Your task to perform on an android device: Open Youtube and go to "Your channel" Image 0: 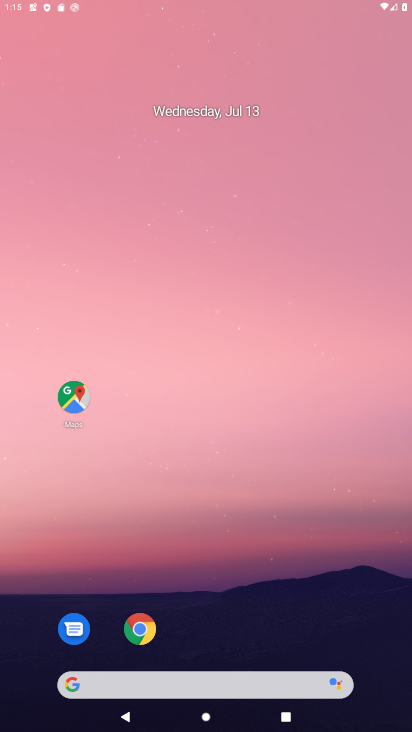
Step 0: click (240, 52)
Your task to perform on an android device: Open Youtube and go to "Your channel" Image 1: 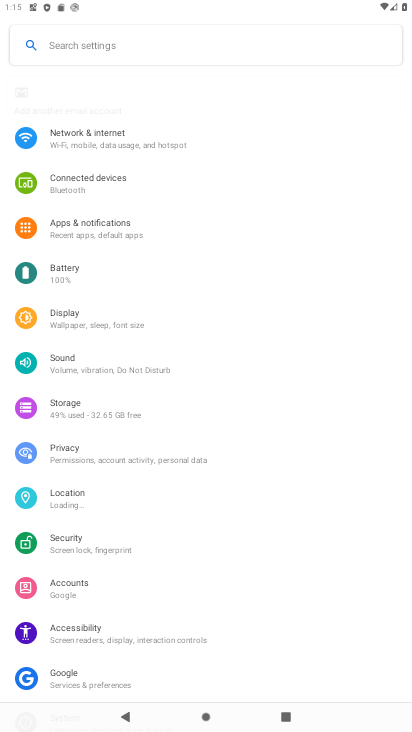
Step 1: drag from (181, 650) to (321, 152)
Your task to perform on an android device: Open Youtube and go to "Your channel" Image 2: 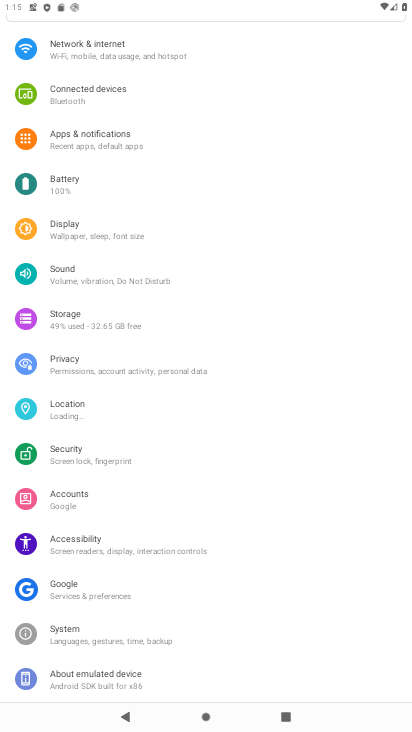
Step 2: drag from (271, 175) to (384, 671)
Your task to perform on an android device: Open Youtube and go to "Your channel" Image 3: 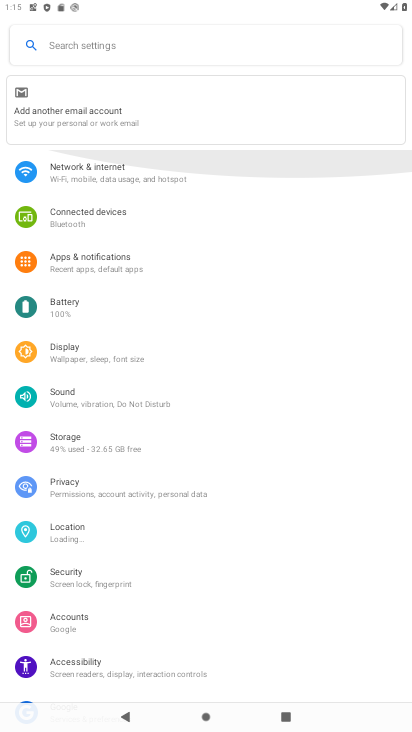
Step 3: press home button
Your task to perform on an android device: Open Youtube and go to "Your channel" Image 4: 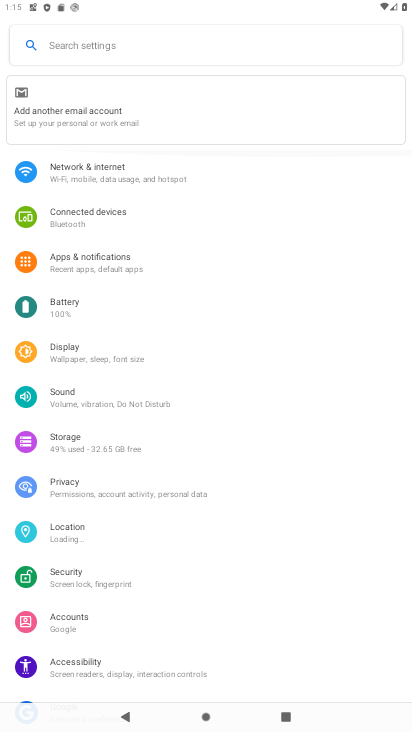
Step 4: drag from (384, 671) to (392, 550)
Your task to perform on an android device: Open Youtube and go to "Your channel" Image 5: 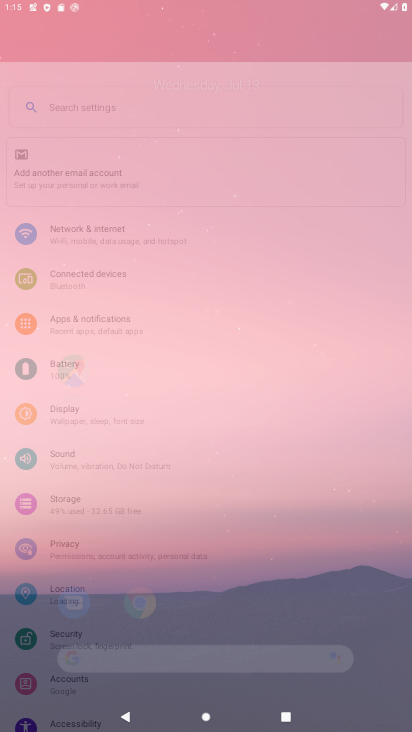
Step 5: drag from (194, 514) to (298, 20)
Your task to perform on an android device: Open Youtube and go to "Your channel" Image 6: 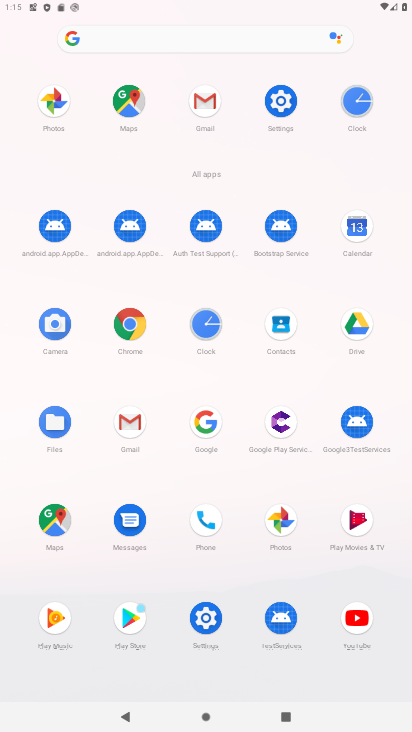
Step 6: click (357, 615)
Your task to perform on an android device: Open Youtube and go to "Your channel" Image 7: 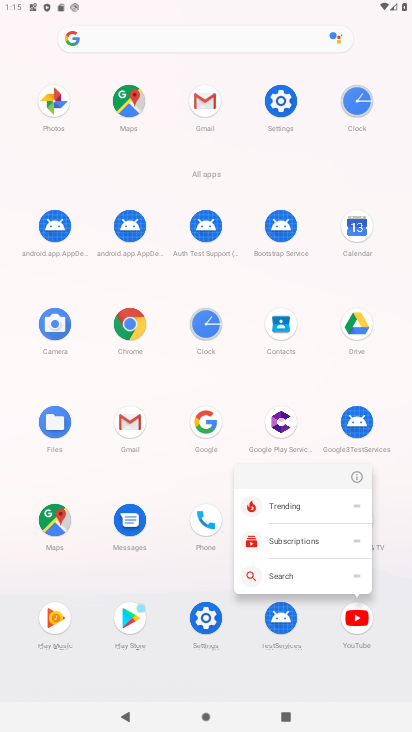
Step 7: click (352, 475)
Your task to perform on an android device: Open Youtube and go to "Your channel" Image 8: 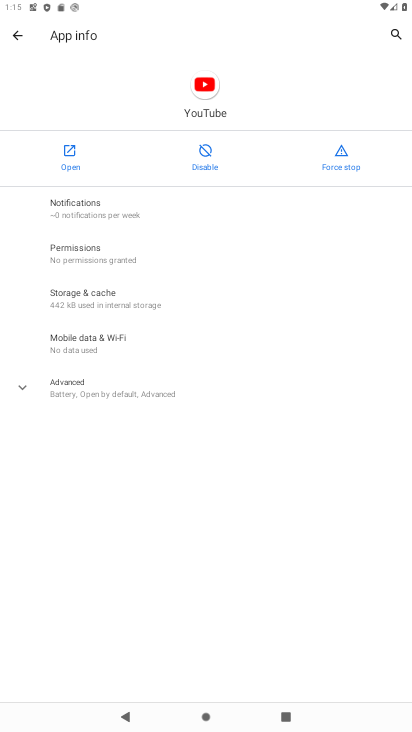
Step 8: click (76, 142)
Your task to perform on an android device: Open Youtube and go to "Your channel" Image 9: 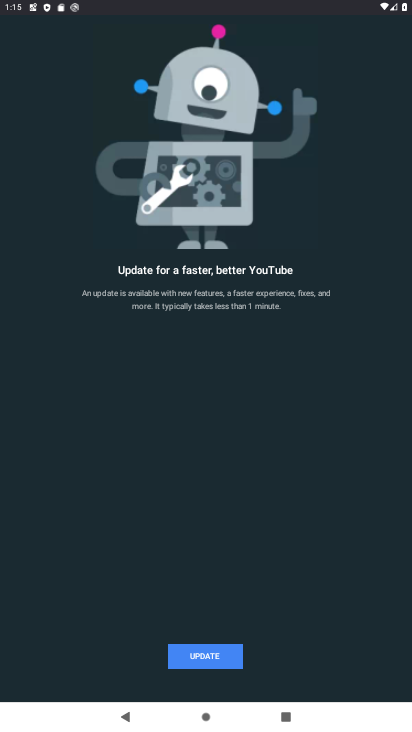
Step 9: drag from (212, 535) to (200, 233)
Your task to perform on an android device: Open Youtube and go to "Your channel" Image 10: 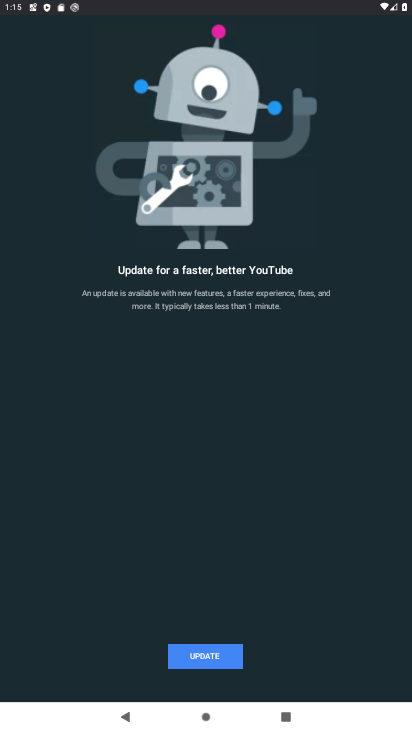
Step 10: press home button
Your task to perform on an android device: Open Youtube and go to "Your channel" Image 11: 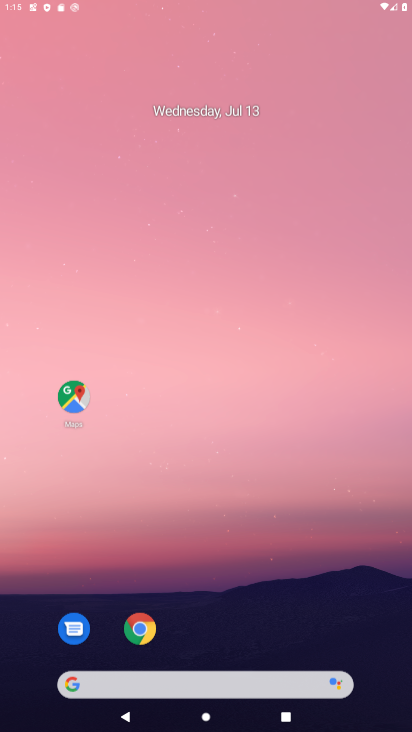
Step 11: drag from (264, 583) to (269, 225)
Your task to perform on an android device: Open Youtube and go to "Your channel" Image 12: 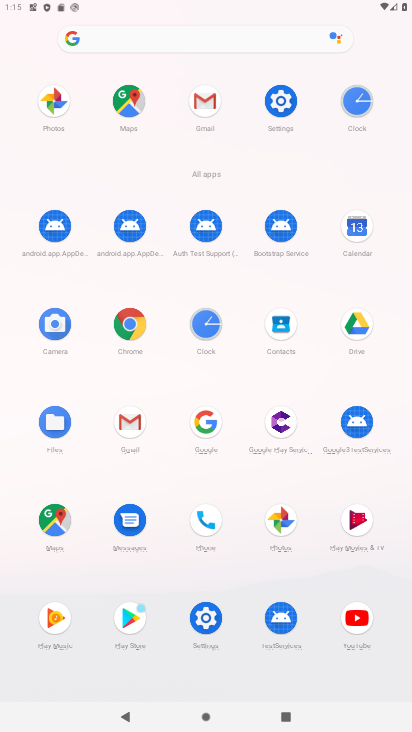
Step 12: click (363, 627)
Your task to perform on an android device: Open Youtube and go to "Your channel" Image 13: 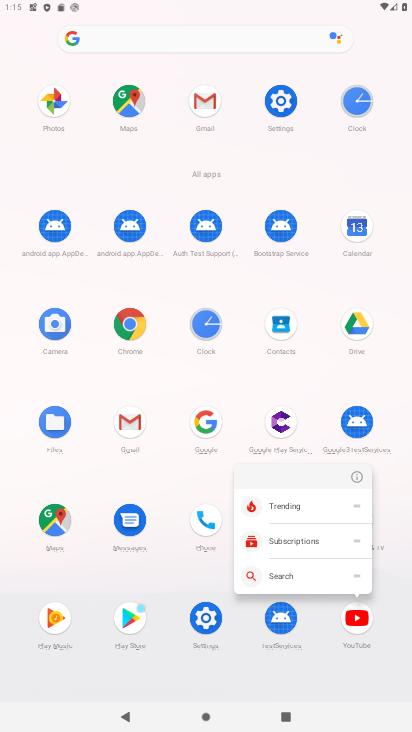
Step 13: click (355, 474)
Your task to perform on an android device: Open Youtube and go to "Your channel" Image 14: 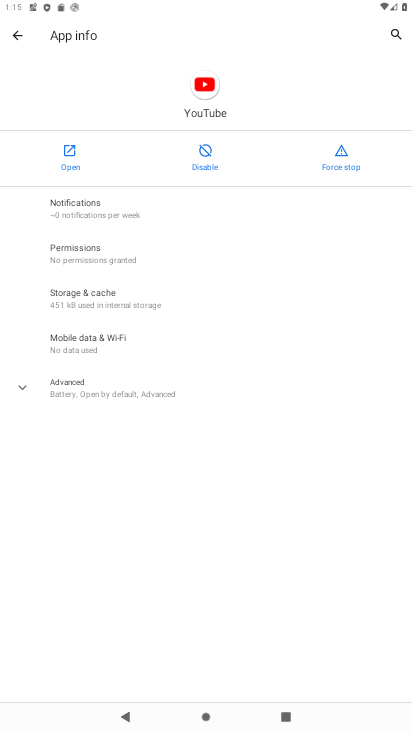
Step 14: click (61, 162)
Your task to perform on an android device: Open Youtube and go to "Your channel" Image 15: 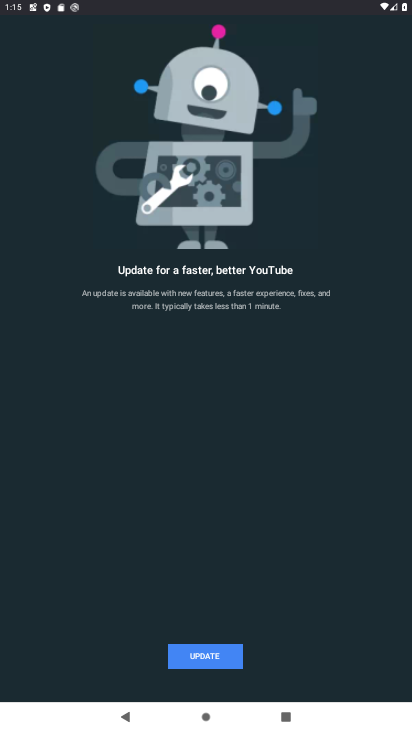
Step 15: click (207, 266)
Your task to perform on an android device: Open Youtube and go to "Your channel" Image 16: 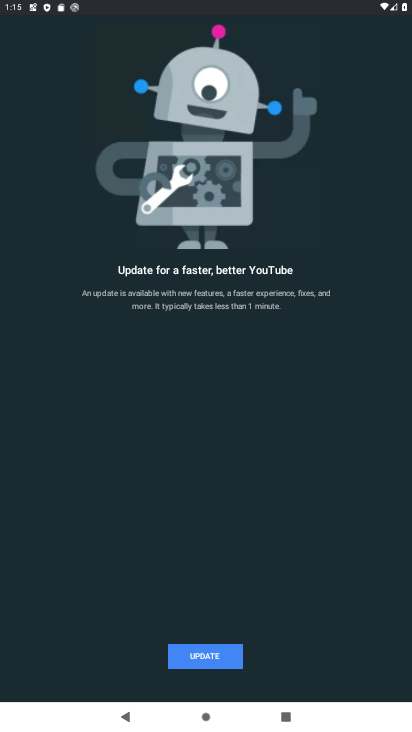
Step 16: click (200, 134)
Your task to perform on an android device: Open Youtube and go to "Your channel" Image 17: 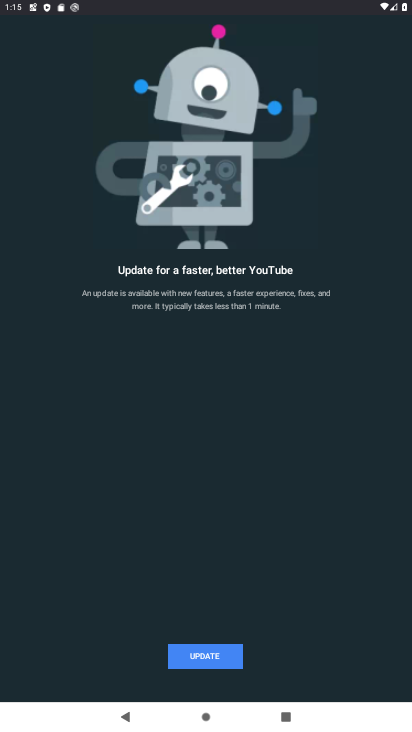
Step 17: click (219, 57)
Your task to perform on an android device: Open Youtube and go to "Your channel" Image 18: 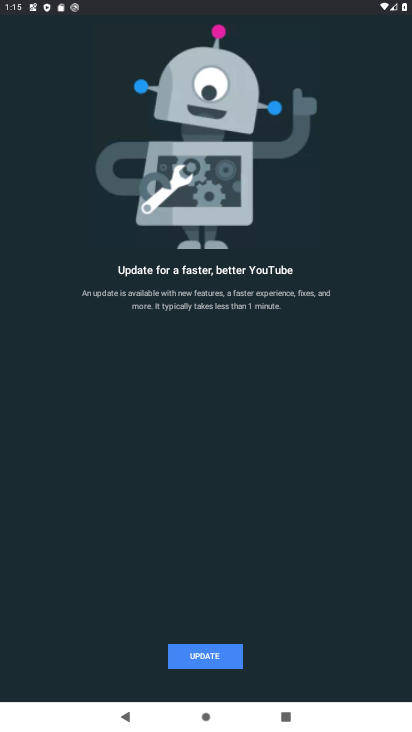
Step 18: click (212, 32)
Your task to perform on an android device: Open Youtube and go to "Your channel" Image 19: 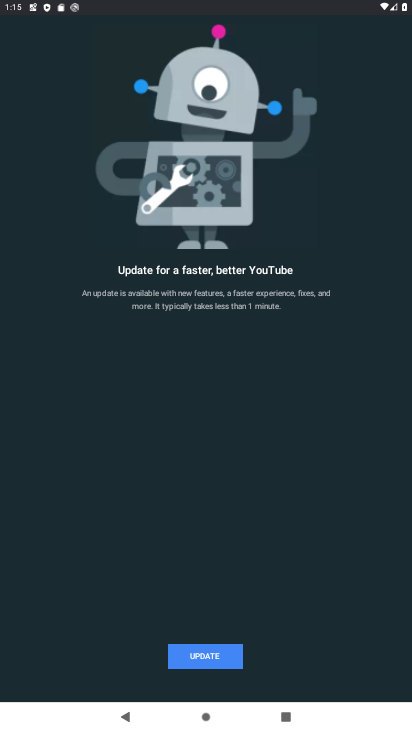
Step 19: click (196, 650)
Your task to perform on an android device: Open Youtube and go to "Your channel" Image 20: 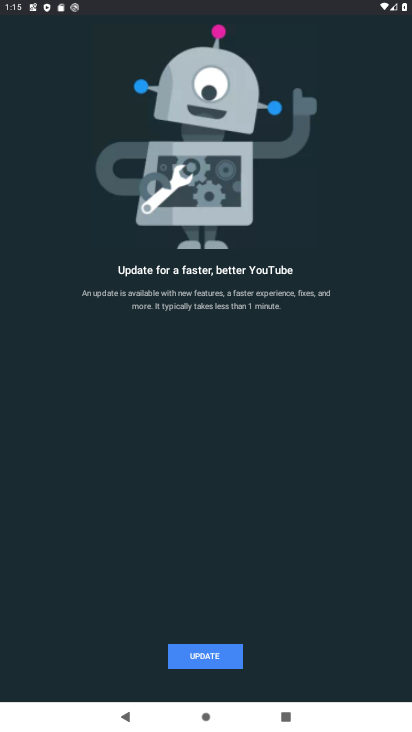
Step 20: click (194, 656)
Your task to perform on an android device: Open Youtube and go to "Your channel" Image 21: 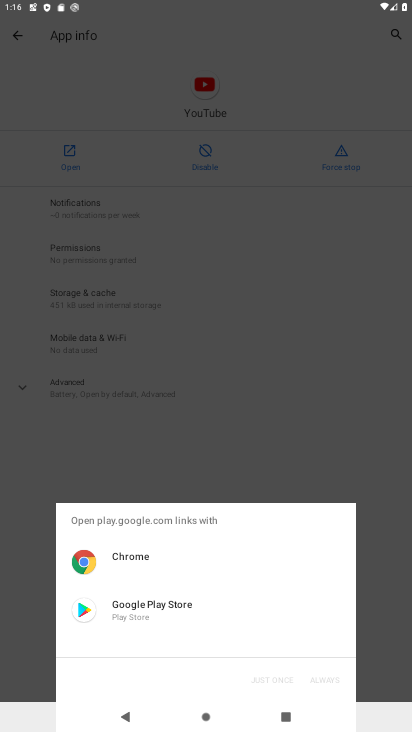
Step 21: click (140, 612)
Your task to perform on an android device: Open Youtube and go to "Your channel" Image 22: 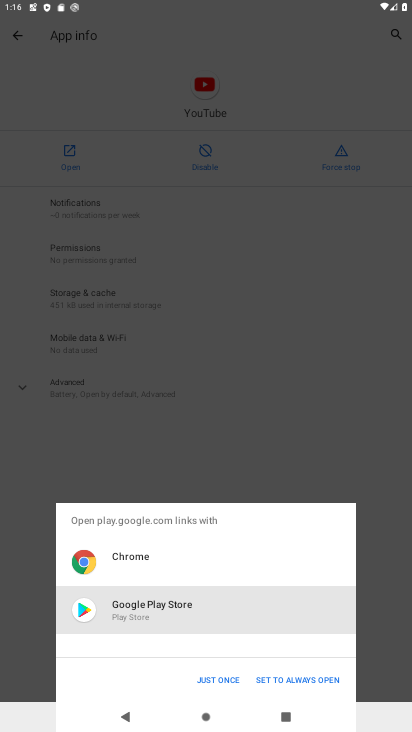
Step 22: click (213, 679)
Your task to perform on an android device: Open Youtube and go to "Your channel" Image 23: 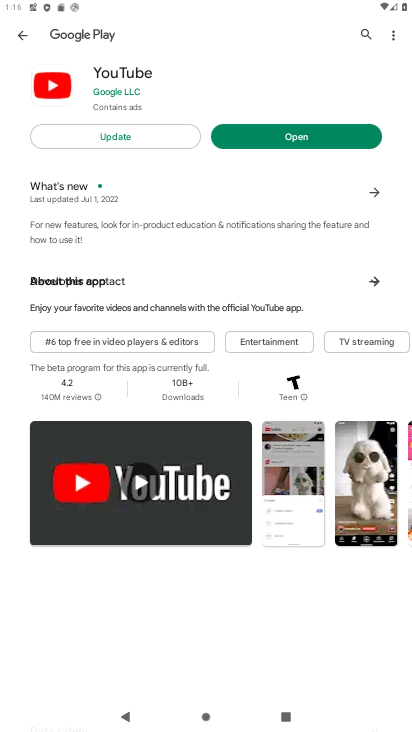
Step 23: click (92, 145)
Your task to perform on an android device: Open Youtube and go to "Your channel" Image 24: 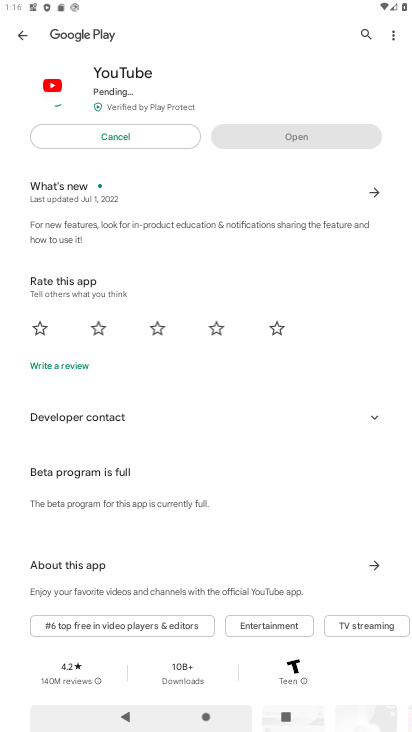
Step 24: task complete